Your task to perform on an android device: check google app version Image 0: 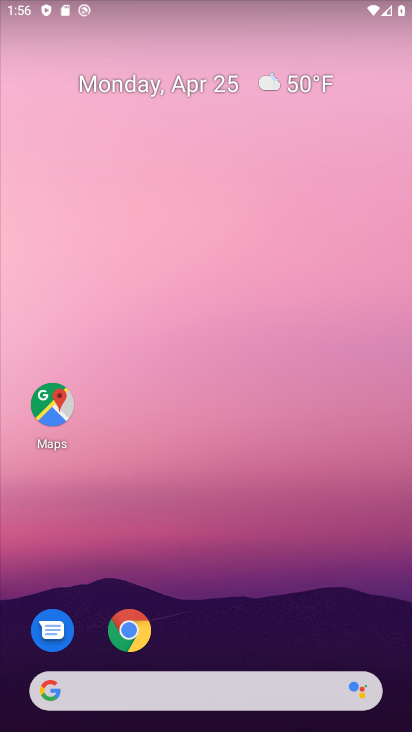
Step 0: drag from (193, 639) to (270, 46)
Your task to perform on an android device: check google app version Image 1: 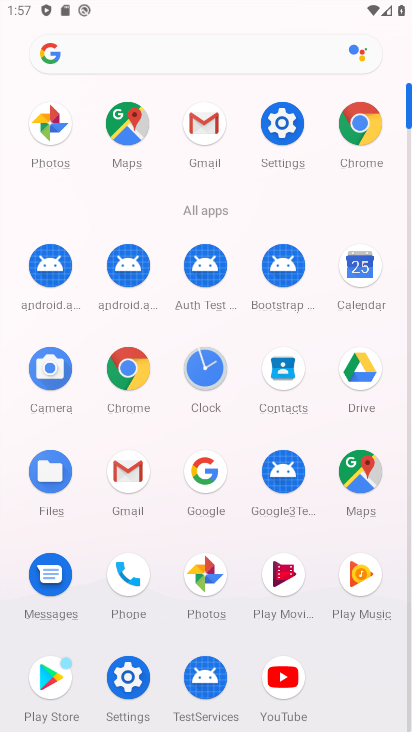
Step 1: click (209, 475)
Your task to perform on an android device: check google app version Image 2: 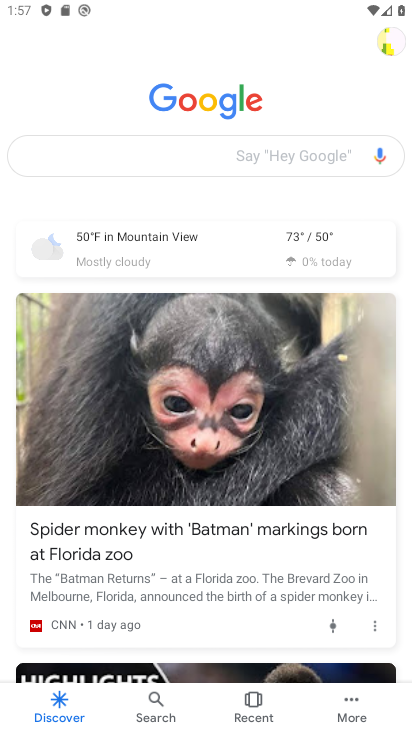
Step 2: click (343, 720)
Your task to perform on an android device: check google app version Image 3: 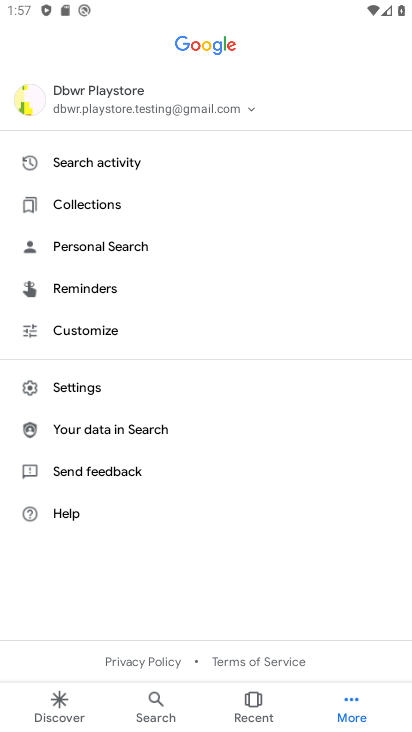
Step 3: click (89, 389)
Your task to perform on an android device: check google app version Image 4: 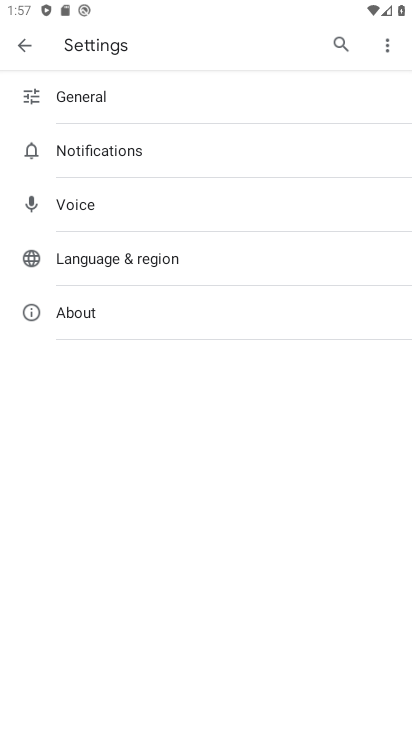
Step 4: click (96, 308)
Your task to perform on an android device: check google app version Image 5: 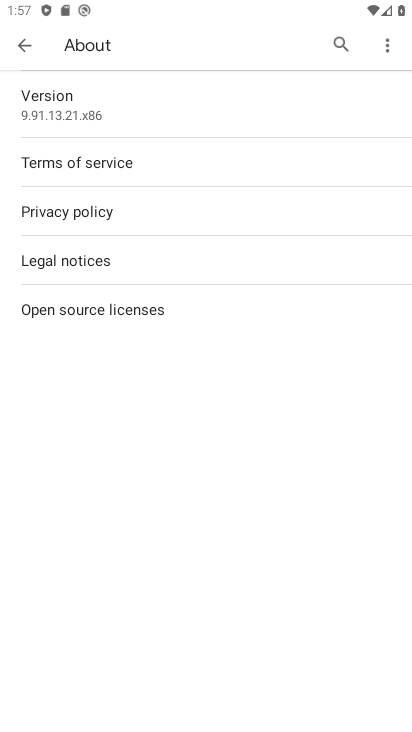
Step 5: click (83, 109)
Your task to perform on an android device: check google app version Image 6: 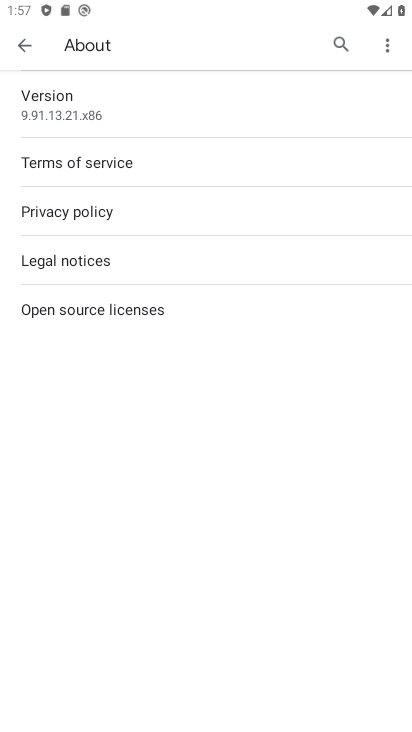
Step 6: task complete